Your task to perform on an android device: Go to network settings Image 0: 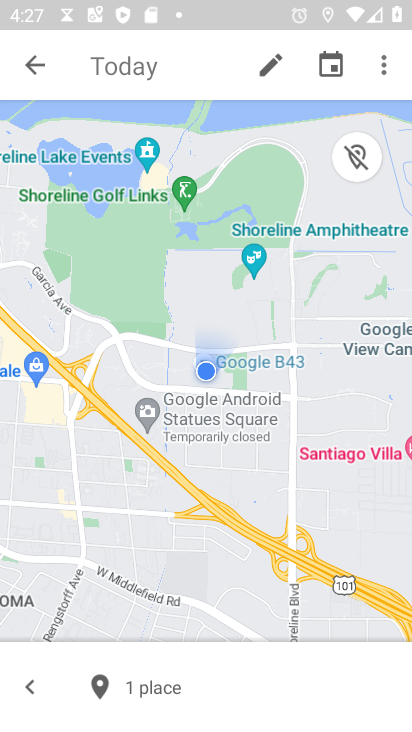
Step 0: press home button
Your task to perform on an android device: Go to network settings Image 1: 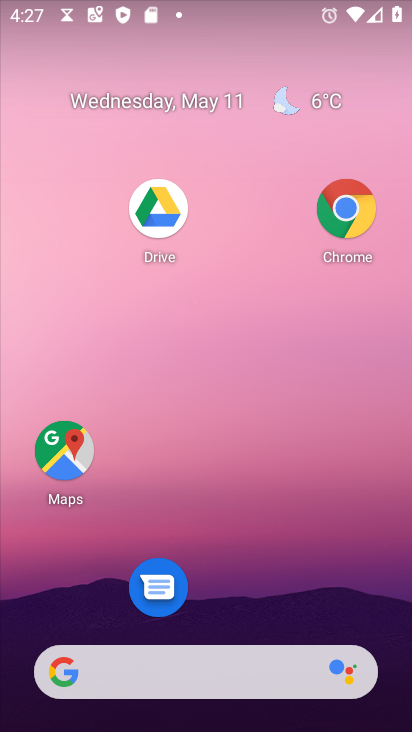
Step 1: drag from (235, 593) to (139, 214)
Your task to perform on an android device: Go to network settings Image 2: 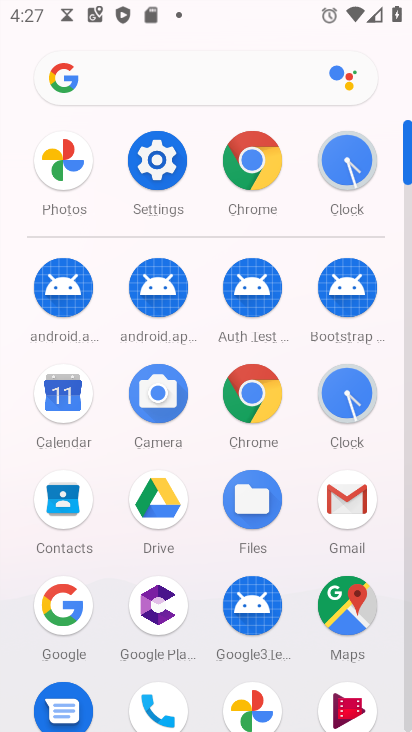
Step 2: click (146, 163)
Your task to perform on an android device: Go to network settings Image 3: 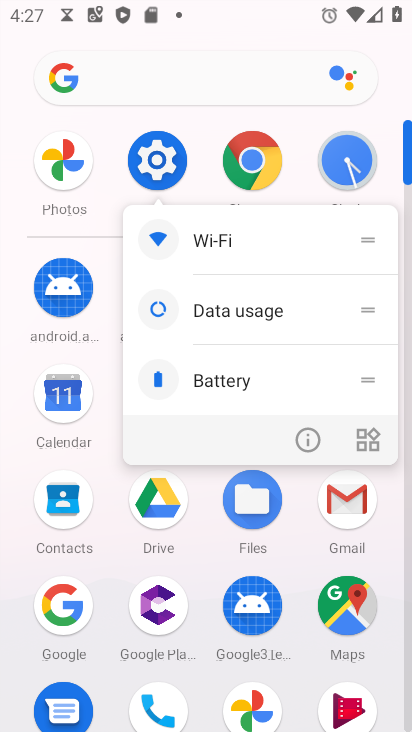
Step 3: click (145, 162)
Your task to perform on an android device: Go to network settings Image 4: 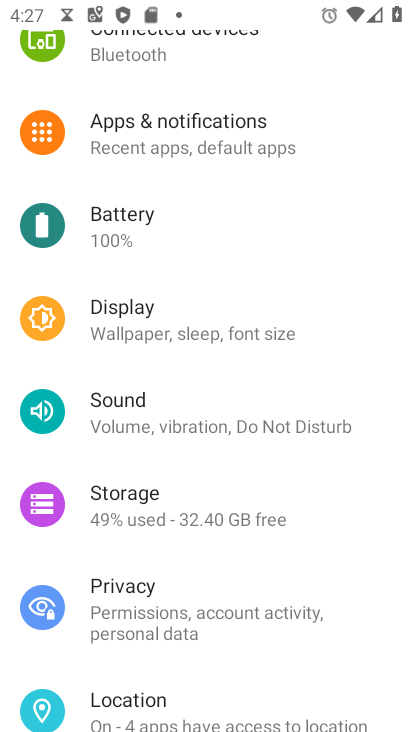
Step 4: drag from (196, 141) to (151, 505)
Your task to perform on an android device: Go to network settings Image 5: 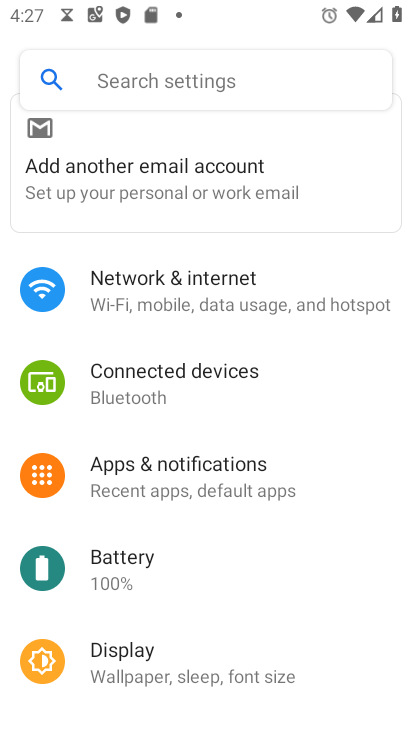
Step 5: click (174, 275)
Your task to perform on an android device: Go to network settings Image 6: 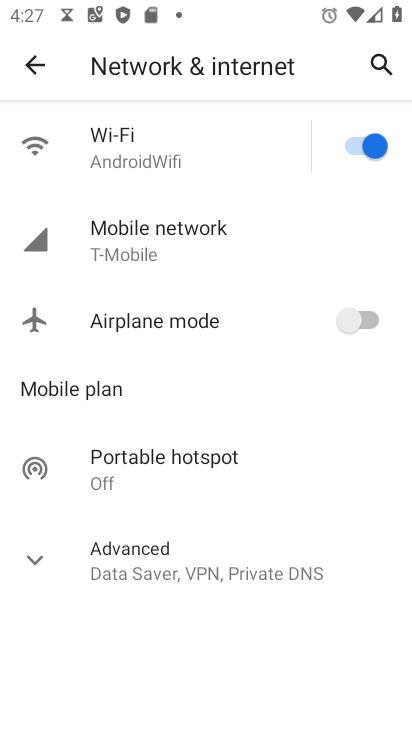
Step 6: task complete